Your task to perform on an android device: install app "LiveIn - Share Your Moment" Image 0: 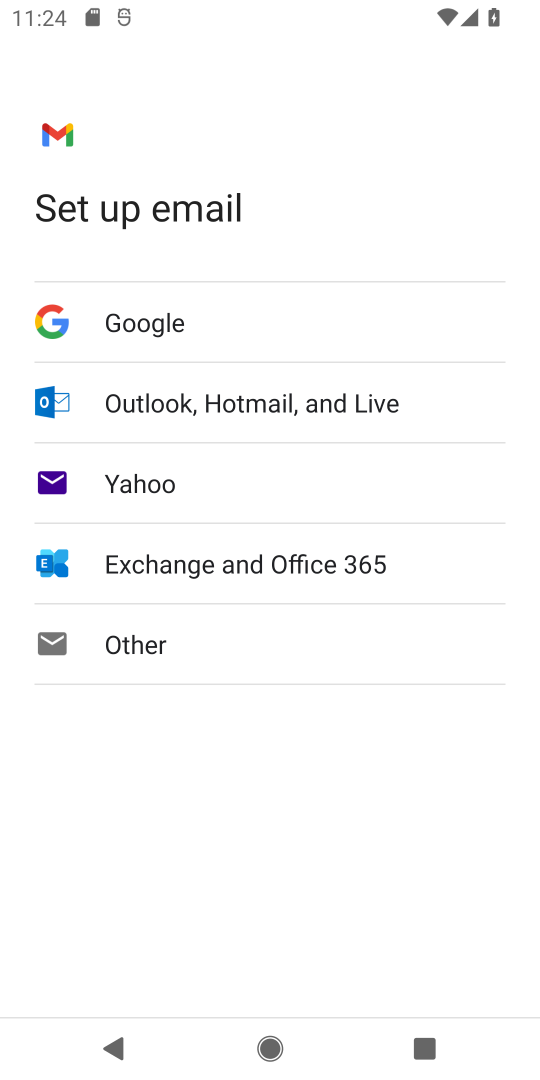
Step 0: press home button
Your task to perform on an android device: install app "LiveIn - Share Your Moment" Image 1: 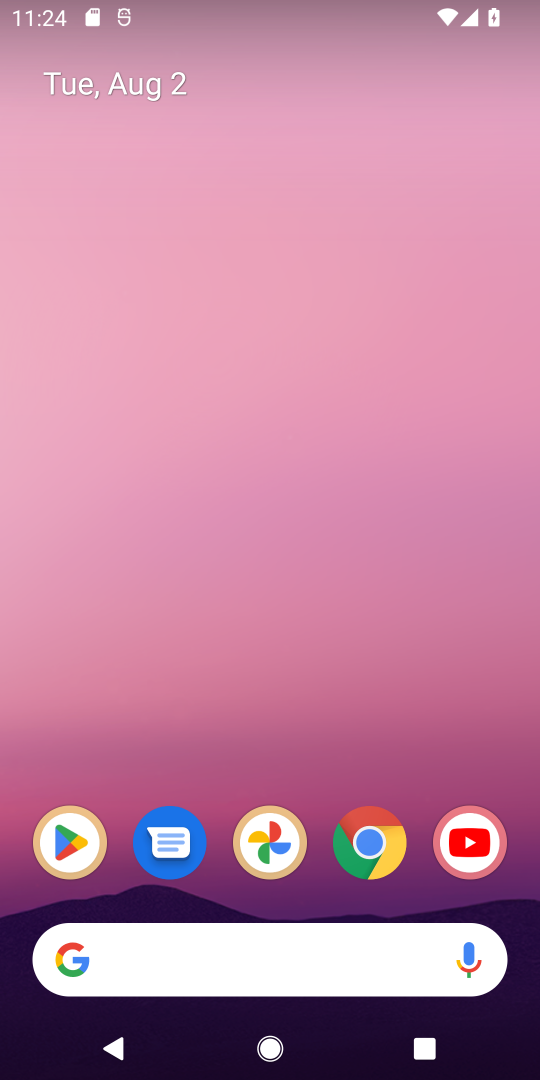
Step 1: click (78, 835)
Your task to perform on an android device: install app "LiveIn - Share Your Moment" Image 2: 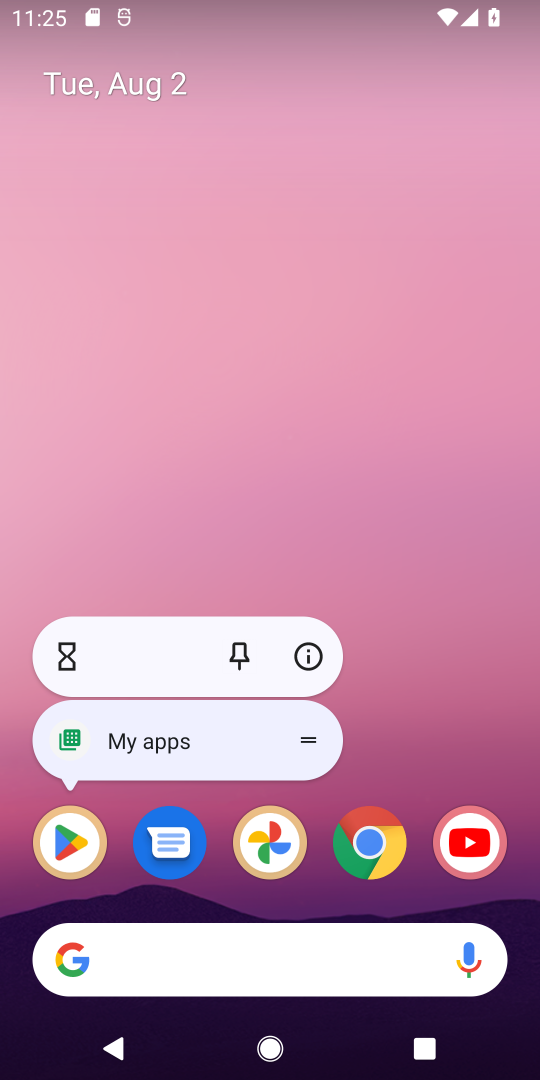
Step 2: click (57, 857)
Your task to perform on an android device: install app "LiveIn - Share Your Moment" Image 3: 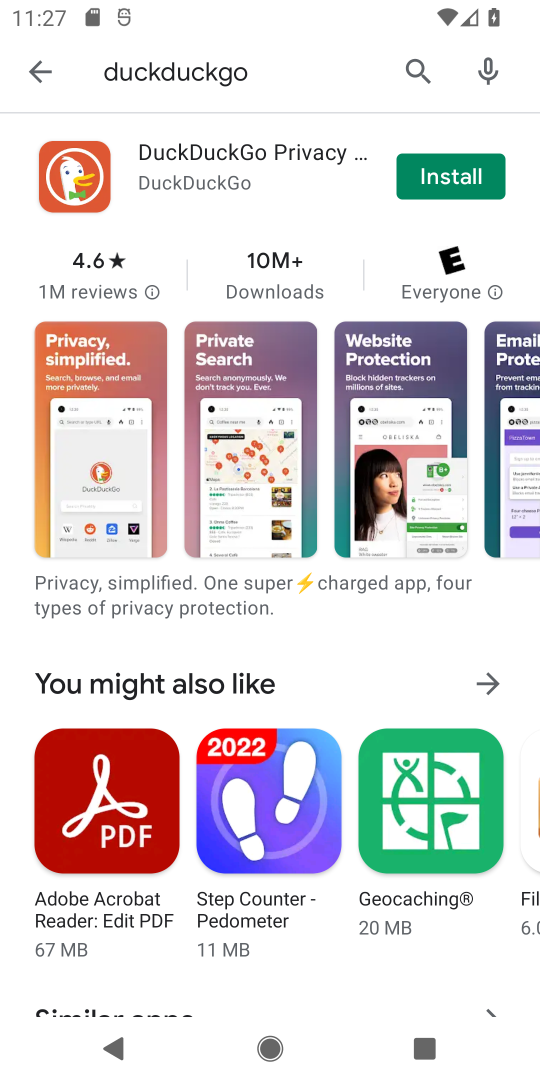
Step 3: click (413, 59)
Your task to perform on an android device: install app "LiveIn - Share Your Moment" Image 4: 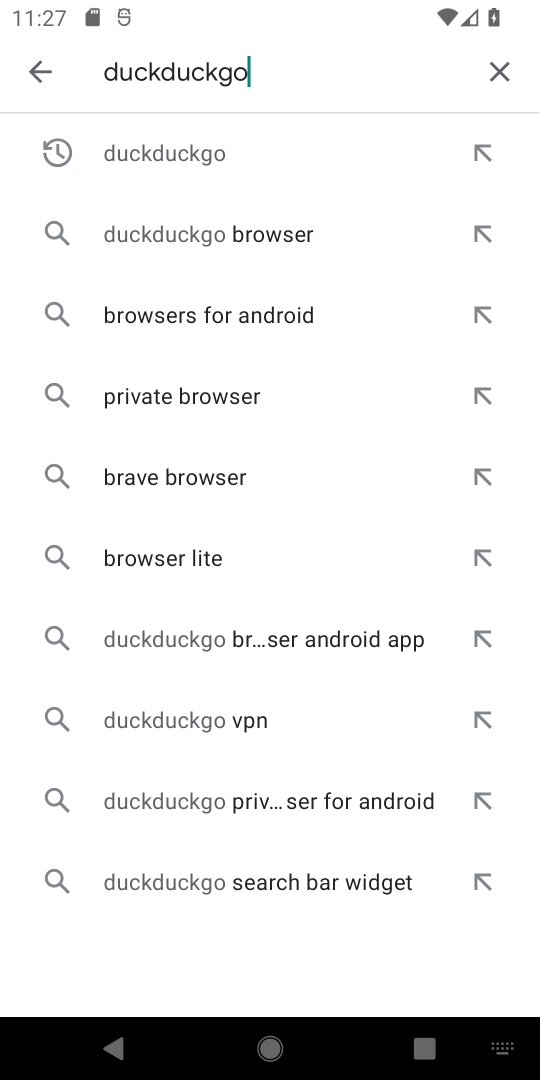
Step 4: click (516, 71)
Your task to perform on an android device: install app "LiveIn - Share Your Moment" Image 5: 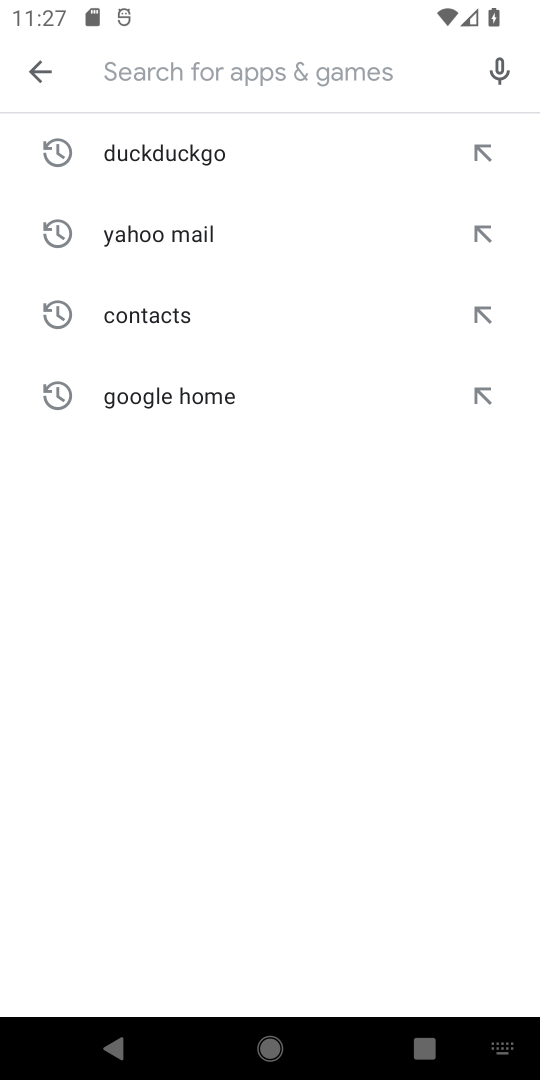
Step 5: click (397, 88)
Your task to perform on an android device: install app "LiveIn - Share Your Moment" Image 6: 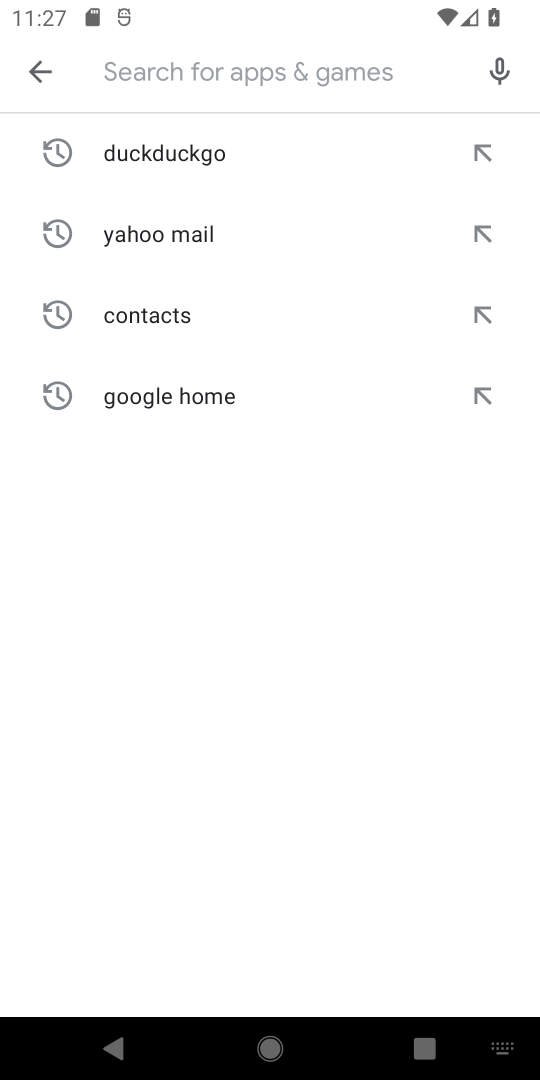
Step 6: click (278, 61)
Your task to perform on an android device: install app "LiveIn - Share Your Moment" Image 7: 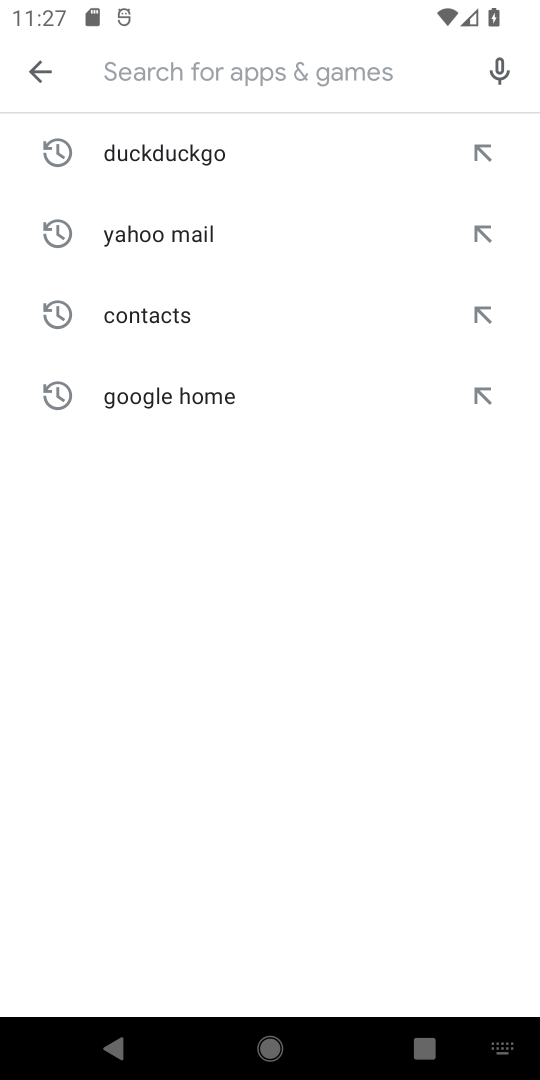
Step 7: click (207, 60)
Your task to perform on an android device: install app "LiveIn - Share Your Moment" Image 8: 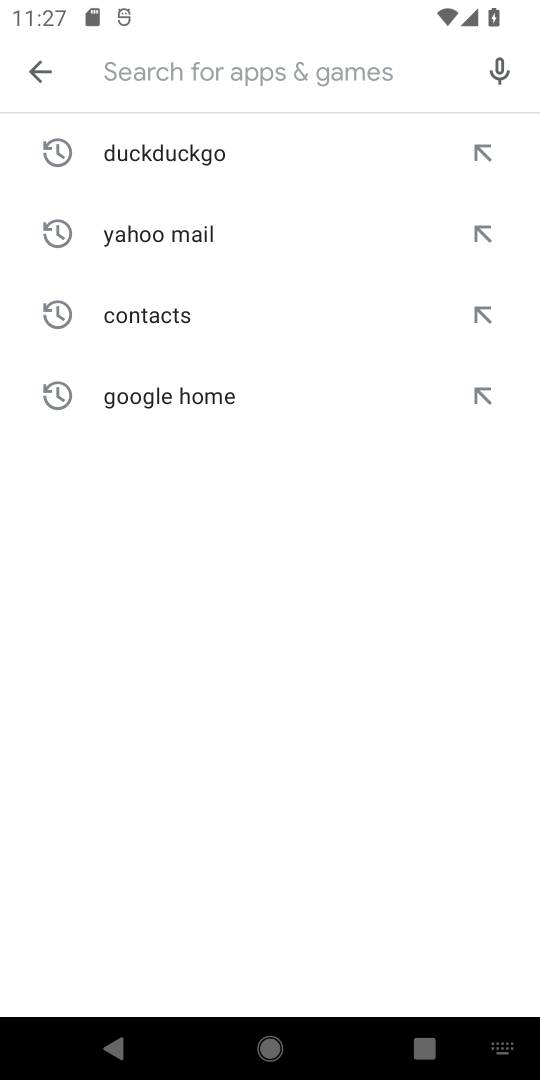
Step 8: type "LiveIn"
Your task to perform on an android device: install app "LiveIn - Share Your Moment" Image 9: 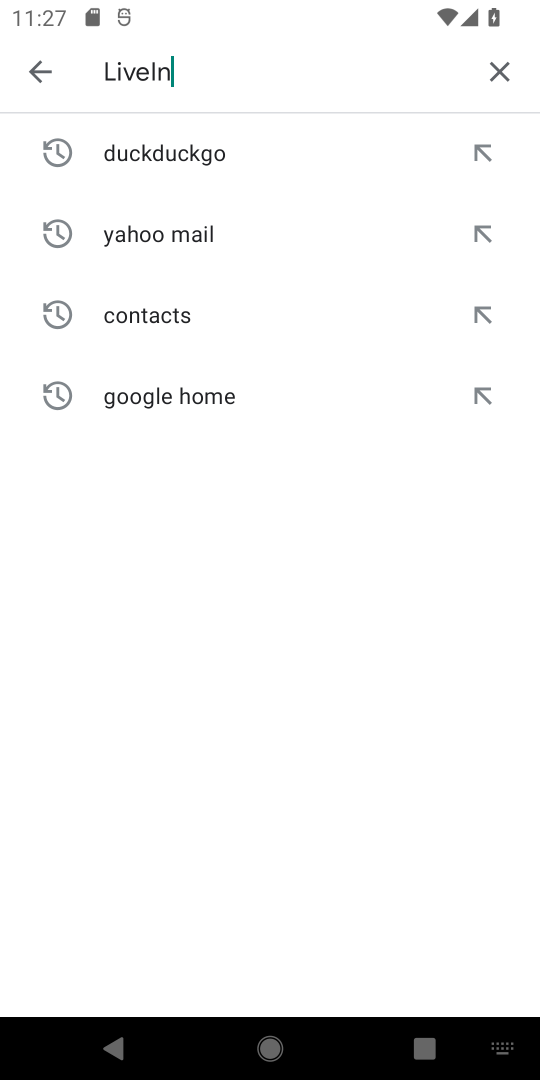
Step 9: type ""
Your task to perform on an android device: install app "LiveIn - Share Your Moment" Image 10: 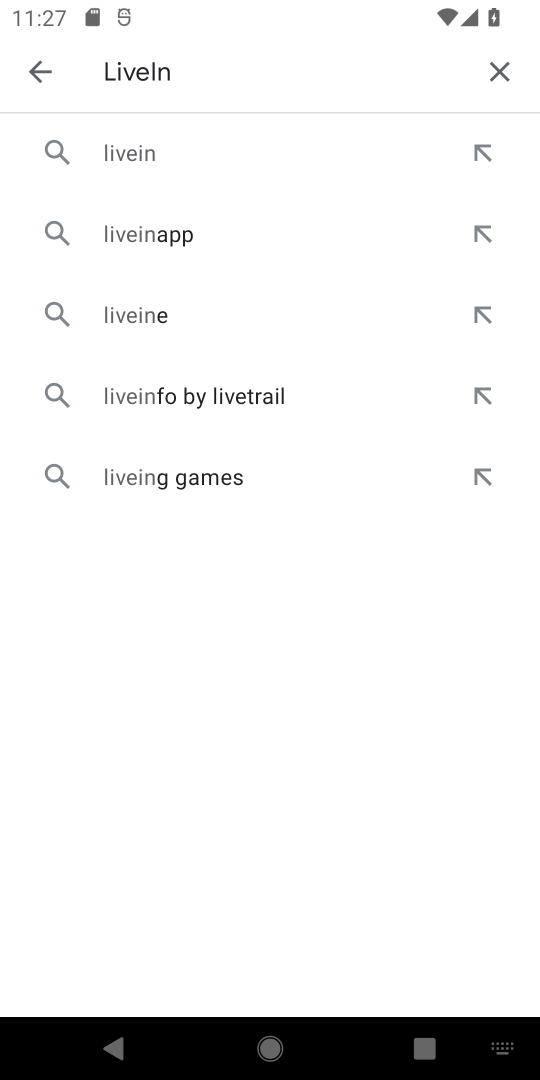
Step 10: click (139, 151)
Your task to perform on an android device: install app "LiveIn - Share Your Moment" Image 11: 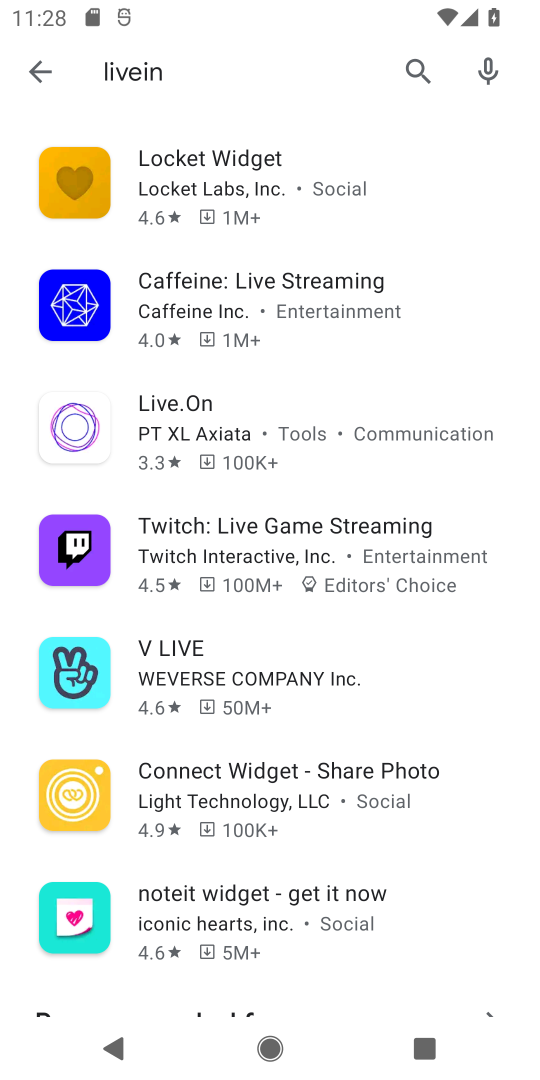
Step 11: click (158, 379)
Your task to perform on an android device: install app "LiveIn - Share Your Moment" Image 12: 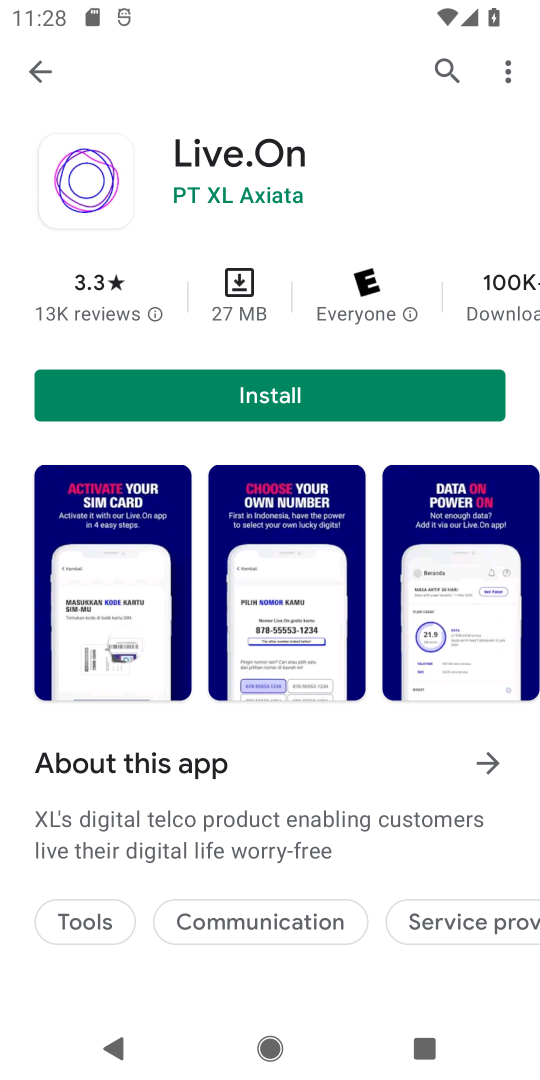
Step 12: click (40, 74)
Your task to perform on an android device: install app "LiveIn - Share Your Moment" Image 13: 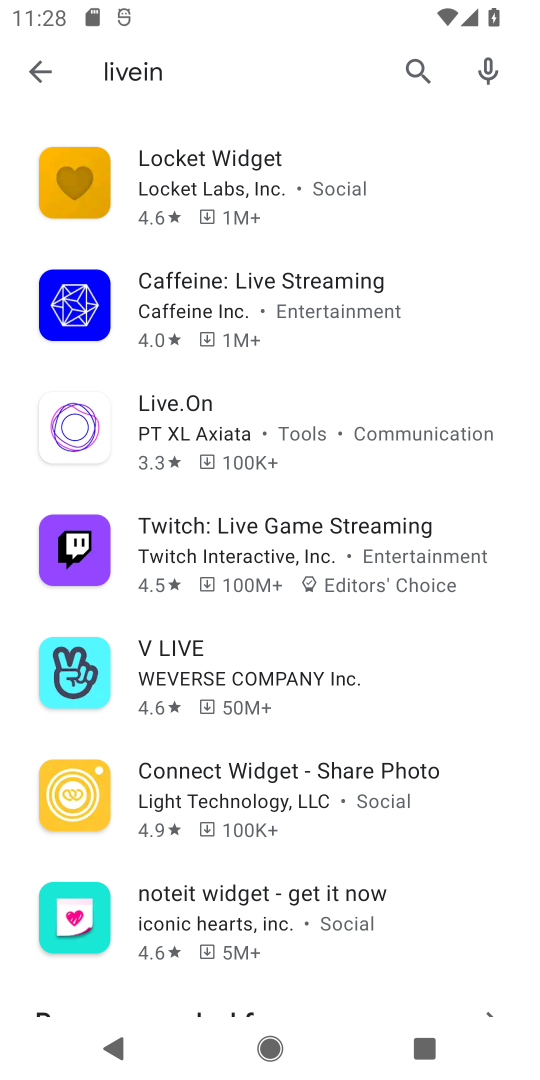
Step 13: drag from (469, 947) to (475, 617)
Your task to perform on an android device: install app "LiveIn - Share Your Moment" Image 14: 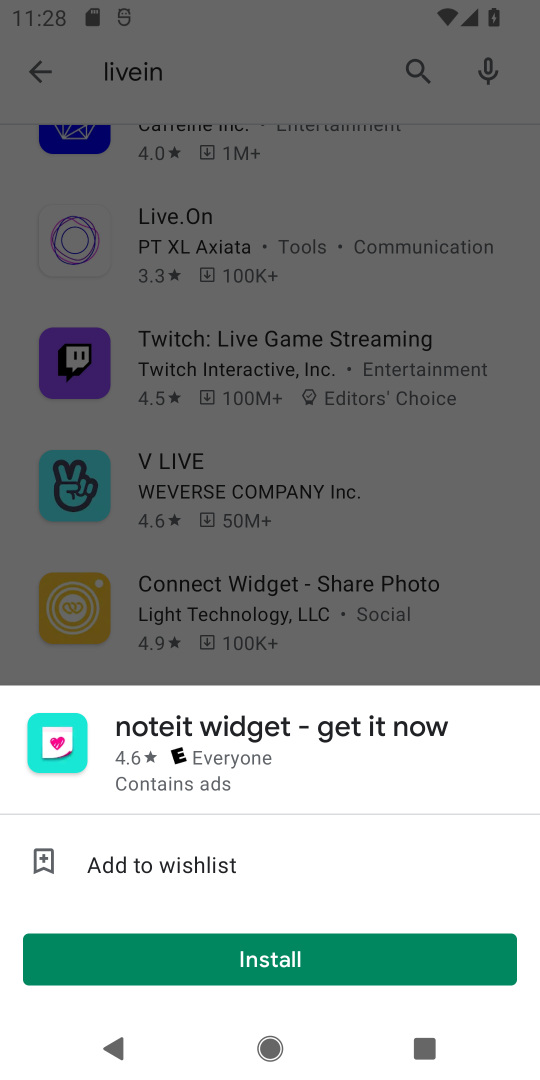
Step 14: click (475, 550)
Your task to perform on an android device: install app "LiveIn - Share Your Moment" Image 15: 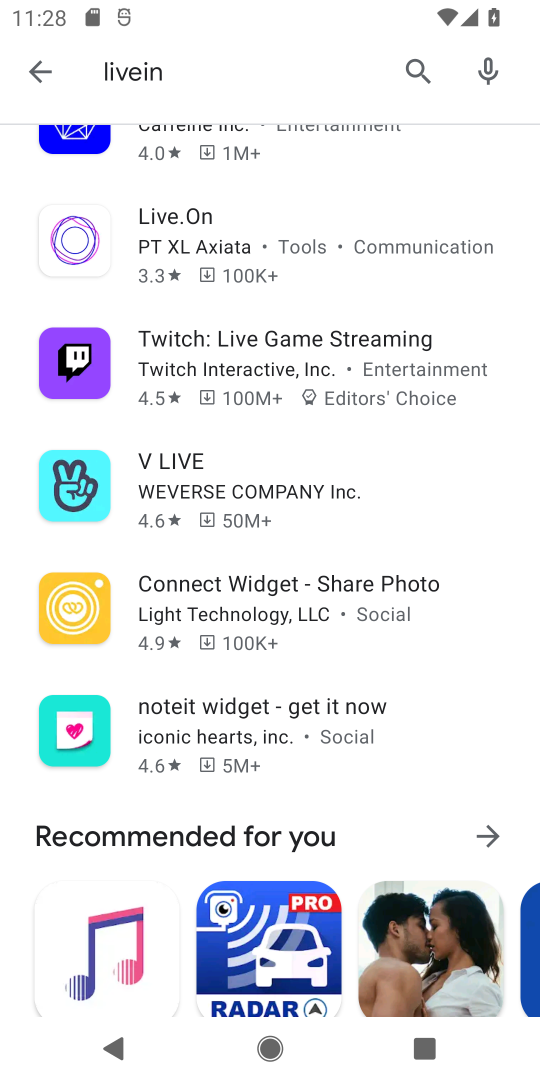
Step 15: task complete